Your task to perform on an android device: Go to location settings Image 0: 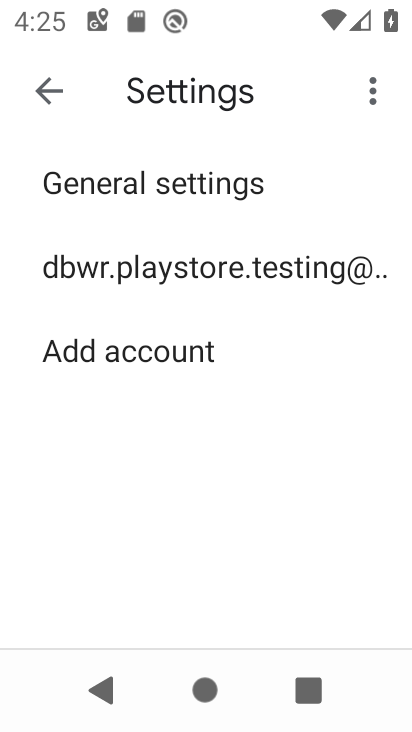
Step 0: press home button
Your task to perform on an android device: Go to location settings Image 1: 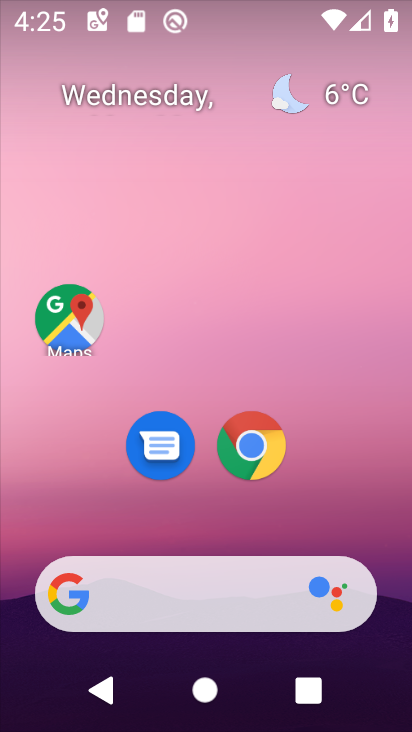
Step 1: drag from (247, 517) to (355, 38)
Your task to perform on an android device: Go to location settings Image 2: 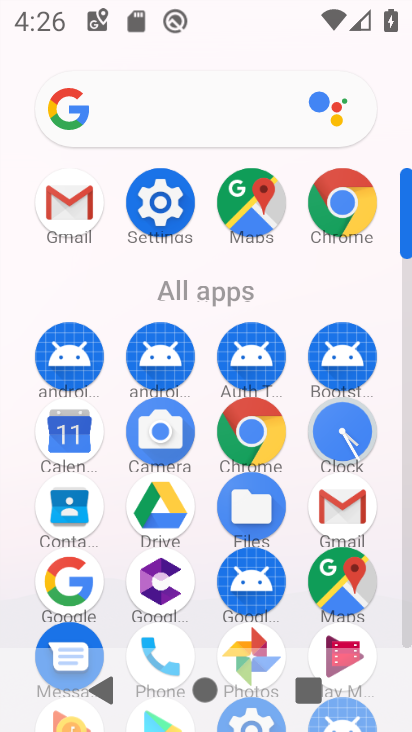
Step 2: click (173, 203)
Your task to perform on an android device: Go to location settings Image 3: 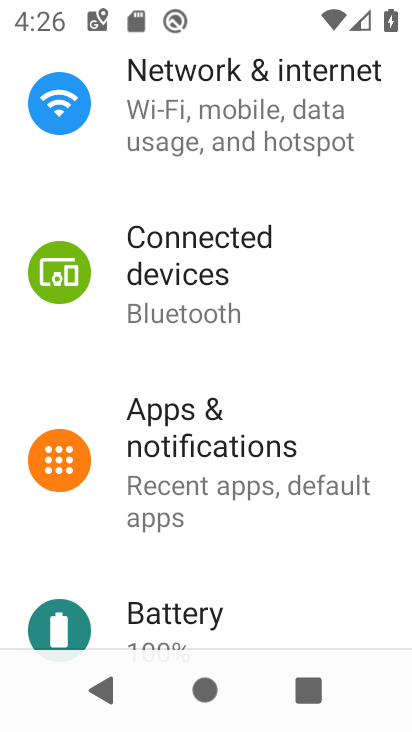
Step 3: drag from (218, 609) to (286, 213)
Your task to perform on an android device: Go to location settings Image 4: 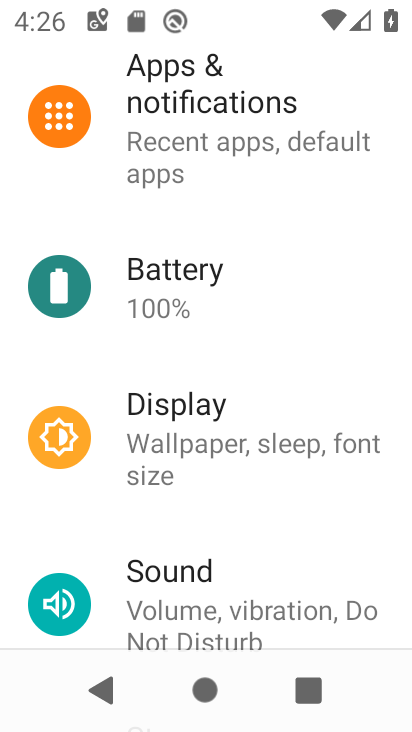
Step 4: drag from (198, 534) to (244, 295)
Your task to perform on an android device: Go to location settings Image 5: 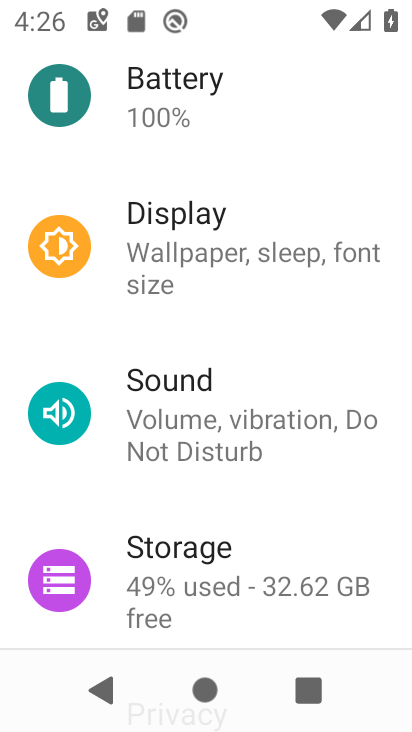
Step 5: drag from (258, 502) to (324, 37)
Your task to perform on an android device: Go to location settings Image 6: 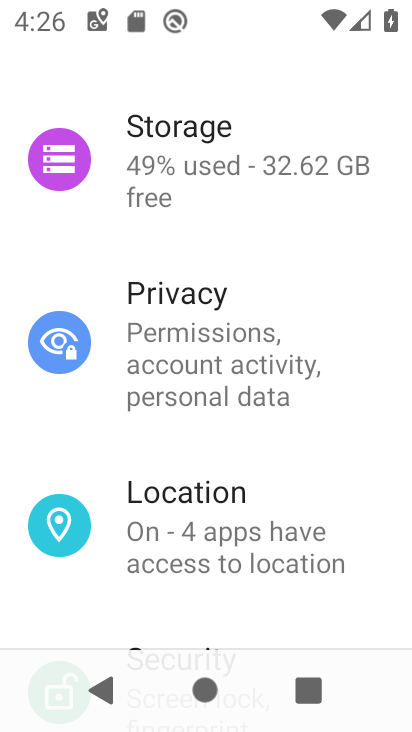
Step 6: click (263, 520)
Your task to perform on an android device: Go to location settings Image 7: 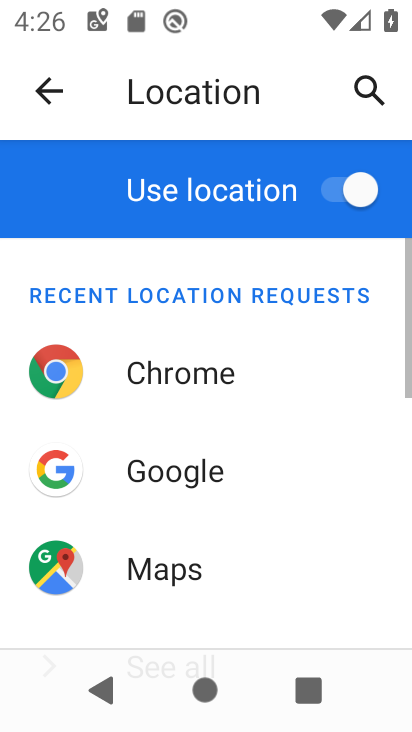
Step 7: task complete